Your task to perform on an android device: turn off data saver in the chrome app Image 0: 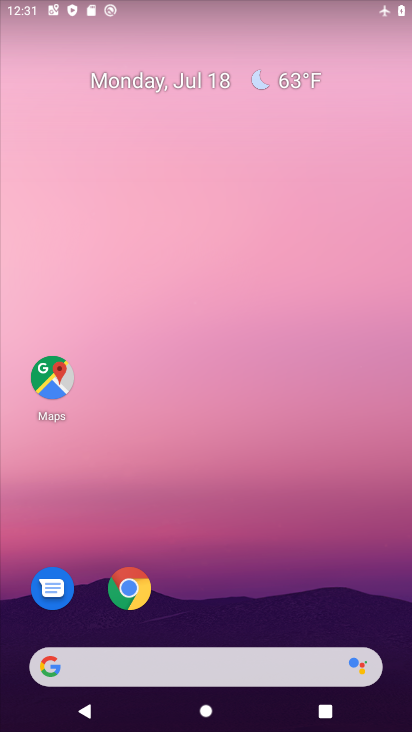
Step 0: click (133, 589)
Your task to perform on an android device: turn off data saver in the chrome app Image 1: 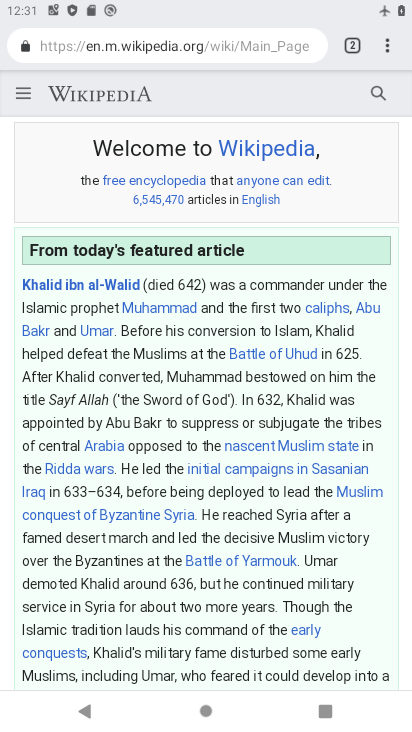
Step 1: click (387, 49)
Your task to perform on an android device: turn off data saver in the chrome app Image 2: 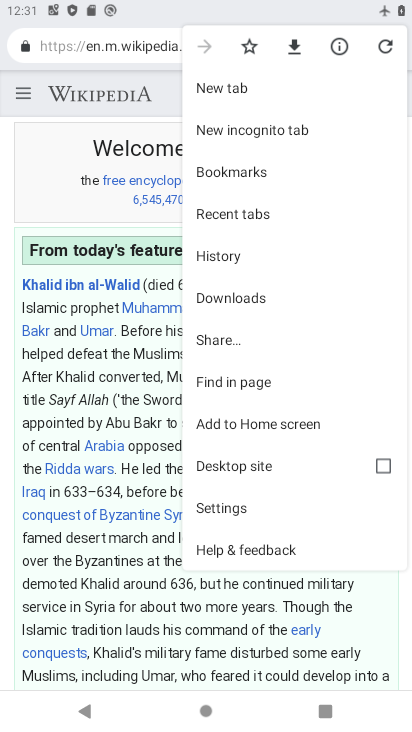
Step 2: click (222, 509)
Your task to perform on an android device: turn off data saver in the chrome app Image 3: 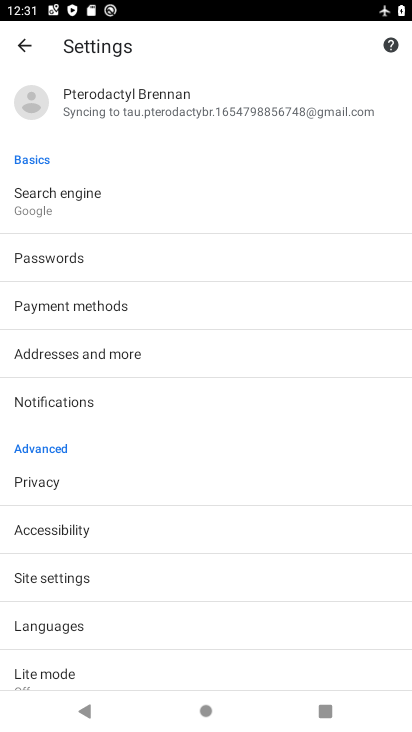
Step 3: click (59, 666)
Your task to perform on an android device: turn off data saver in the chrome app Image 4: 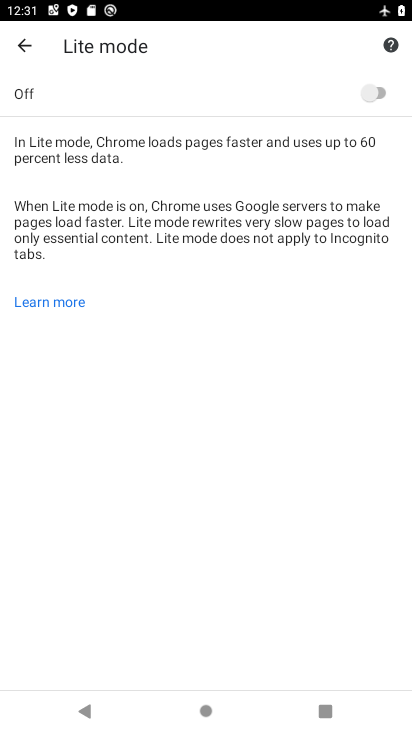
Step 4: task complete